Your task to perform on an android device: Open location settings Image 0: 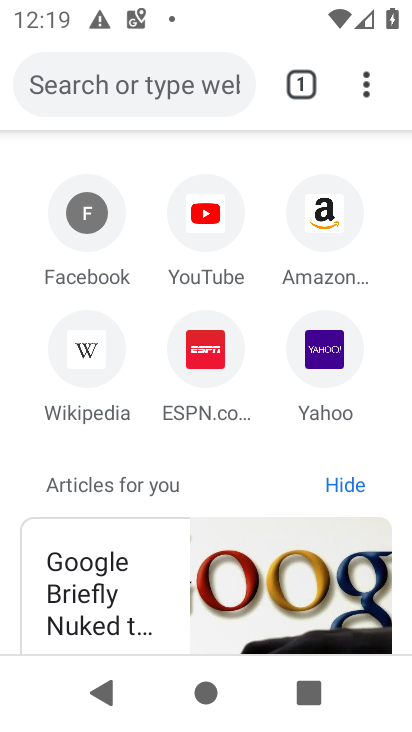
Step 0: press home button
Your task to perform on an android device: Open location settings Image 1: 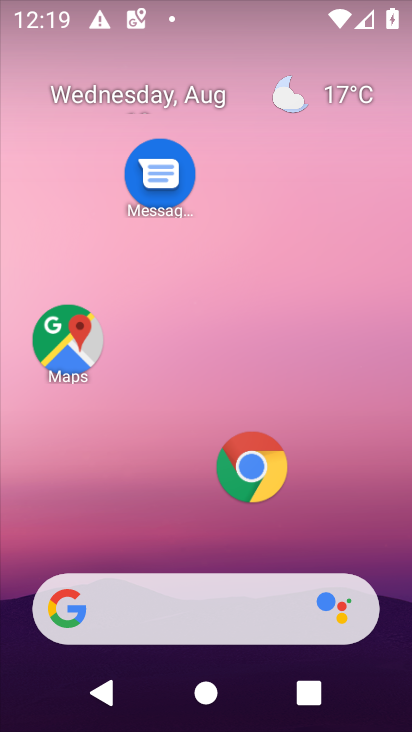
Step 1: click (47, 348)
Your task to perform on an android device: Open location settings Image 2: 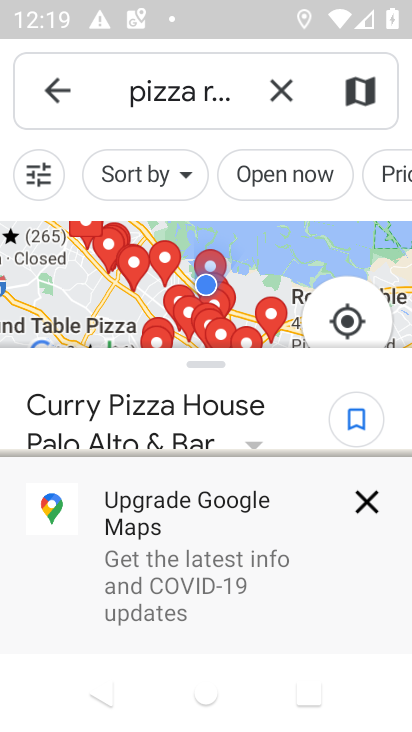
Step 2: click (68, 102)
Your task to perform on an android device: Open location settings Image 3: 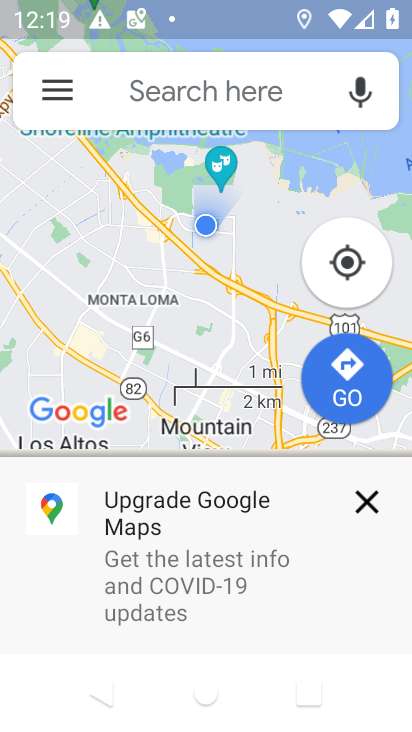
Step 3: click (68, 102)
Your task to perform on an android device: Open location settings Image 4: 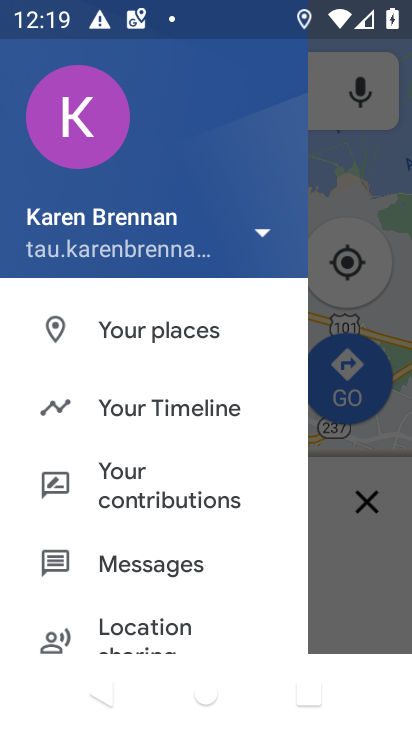
Step 4: drag from (146, 614) to (82, 230)
Your task to perform on an android device: Open location settings Image 5: 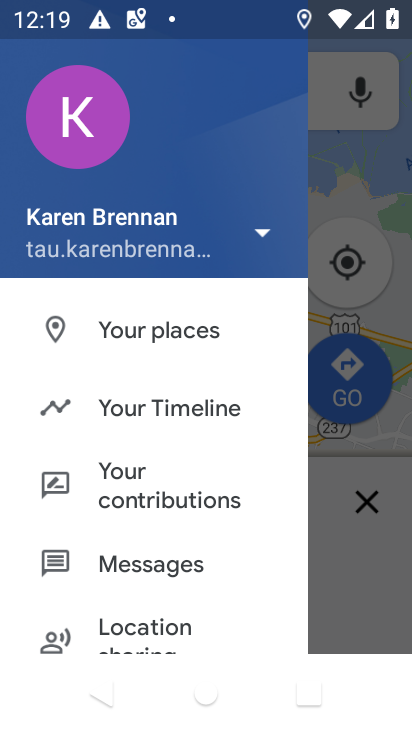
Step 5: drag from (216, 586) to (143, 127)
Your task to perform on an android device: Open location settings Image 6: 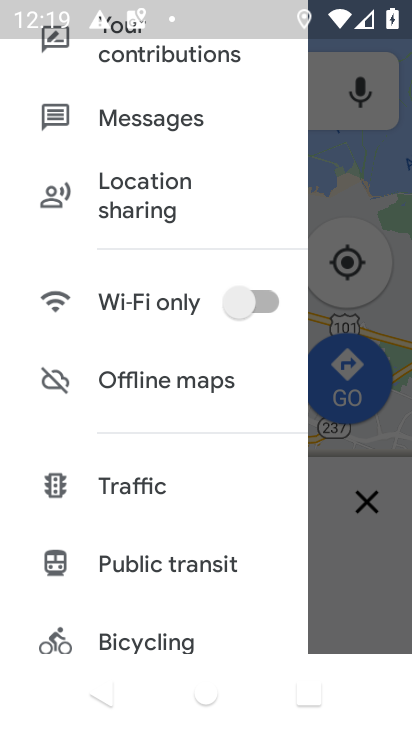
Step 6: drag from (261, 587) to (231, 127)
Your task to perform on an android device: Open location settings Image 7: 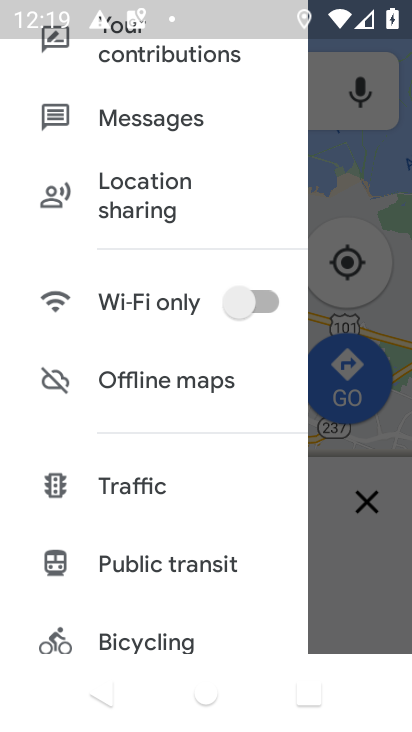
Step 7: drag from (194, 585) to (170, 276)
Your task to perform on an android device: Open location settings Image 8: 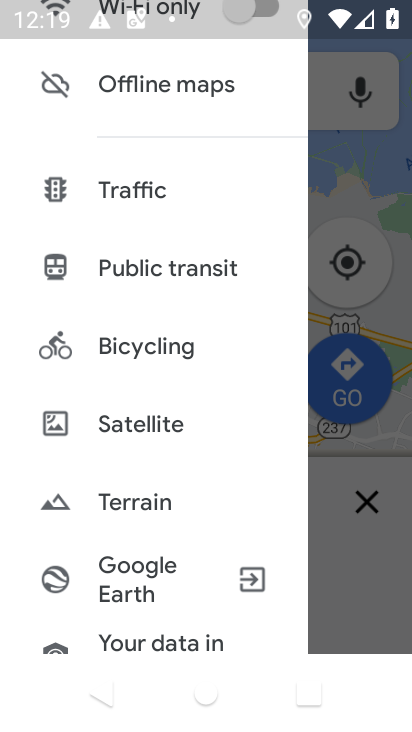
Step 8: drag from (217, 581) to (149, 229)
Your task to perform on an android device: Open location settings Image 9: 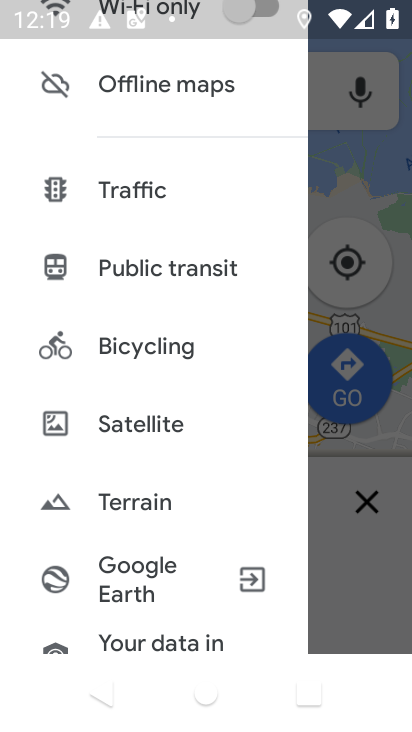
Step 9: drag from (168, 470) to (139, 198)
Your task to perform on an android device: Open location settings Image 10: 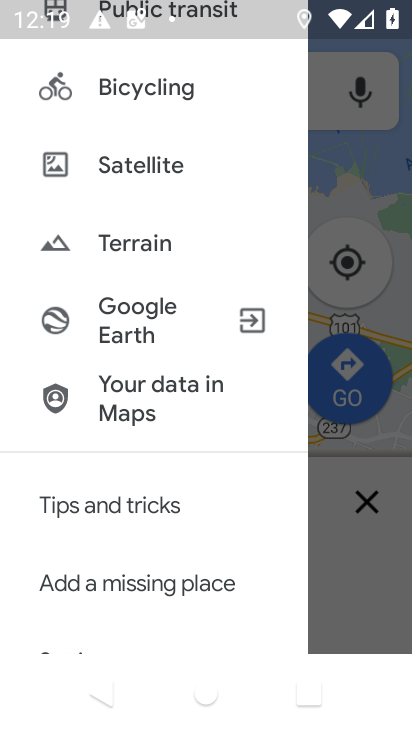
Step 10: drag from (184, 546) to (172, 262)
Your task to perform on an android device: Open location settings Image 11: 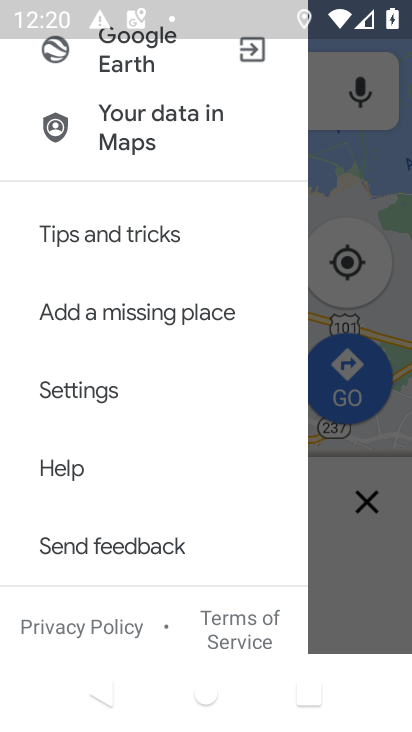
Step 11: click (158, 376)
Your task to perform on an android device: Open location settings Image 12: 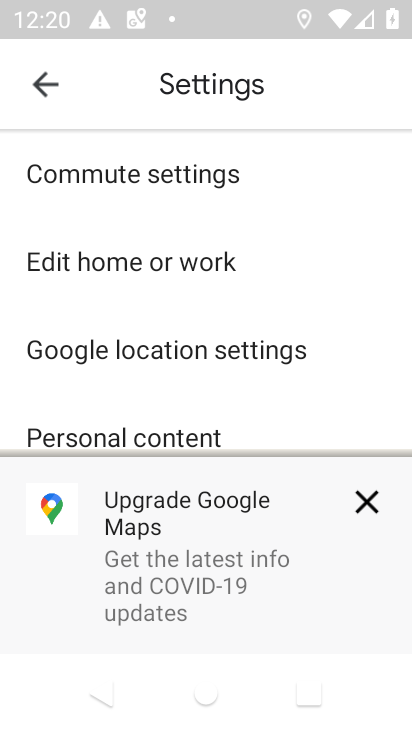
Step 12: task complete